Your task to perform on an android device: check data usage Image 0: 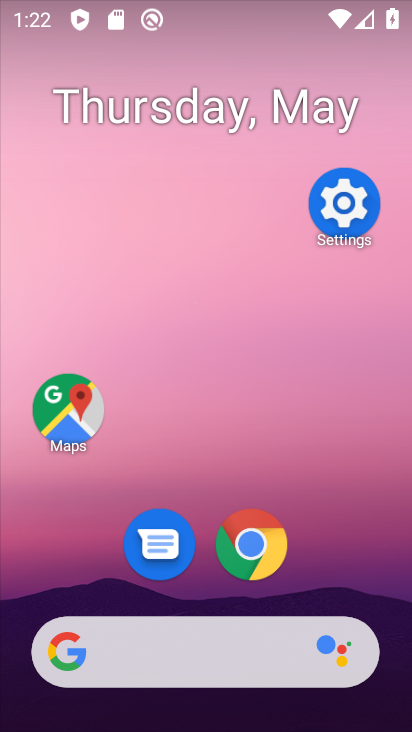
Step 0: click (352, 202)
Your task to perform on an android device: check data usage Image 1: 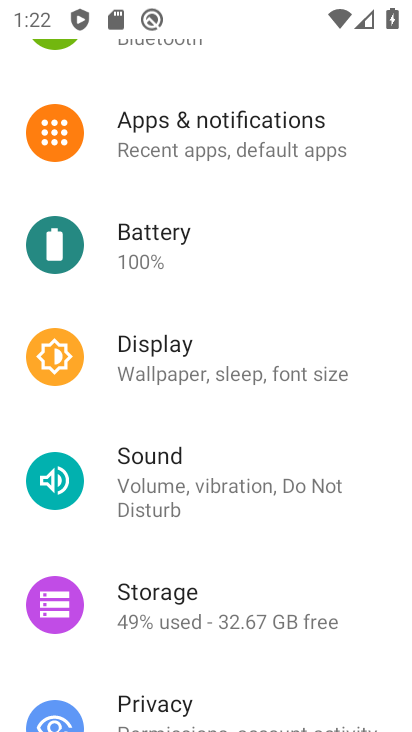
Step 1: drag from (231, 146) to (230, 577)
Your task to perform on an android device: check data usage Image 2: 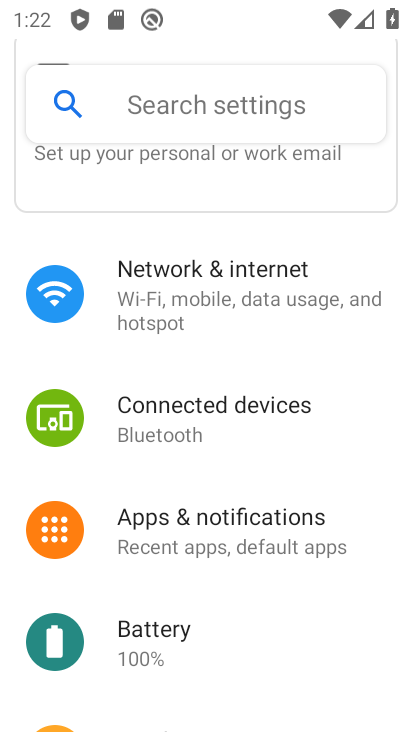
Step 2: click (202, 317)
Your task to perform on an android device: check data usage Image 3: 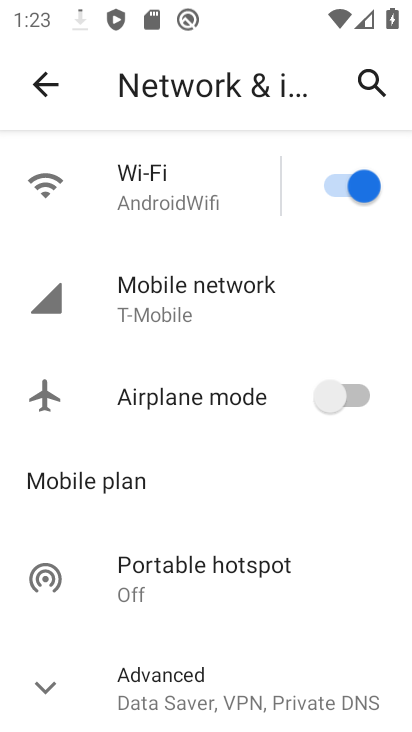
Step 3: click (202, 296)
Your task to perform on an android device: check data usage Image 4: 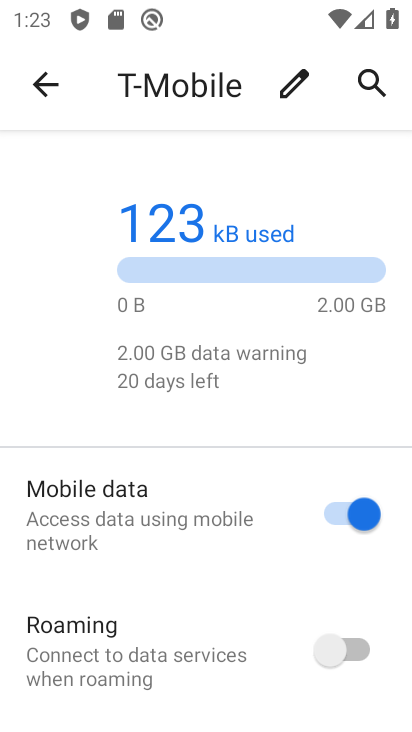
Step 4: drag from (171, 602) to (237, 186)
Your task to perform on an android device: check data usage Image 5: 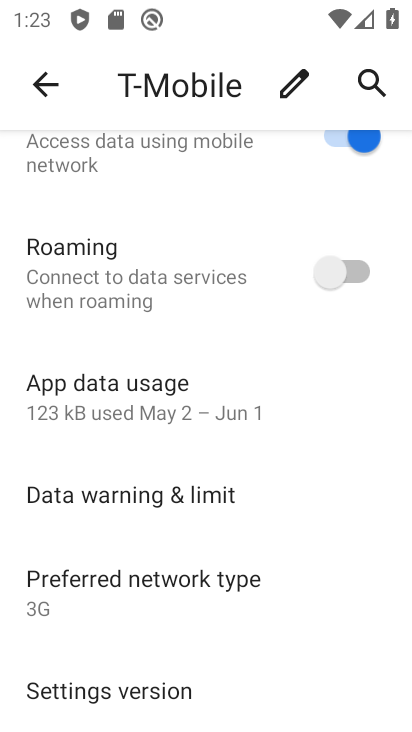
Step 5: click (192, 389)
Your task to perform on an android device: check data usage Image 6: 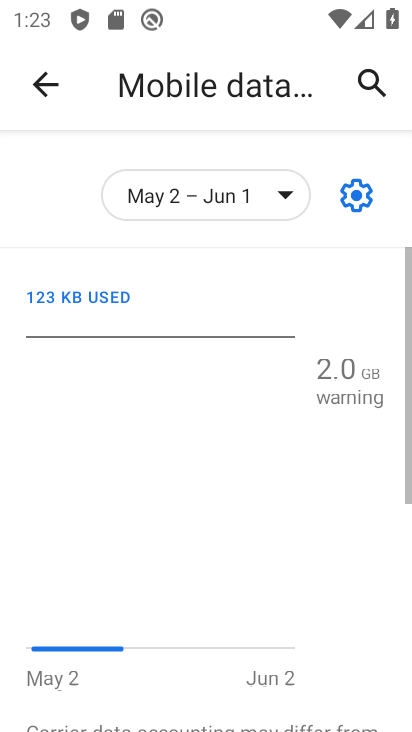
Step 6: task complete